Your task to perform on an android device: Open maps Image 0: 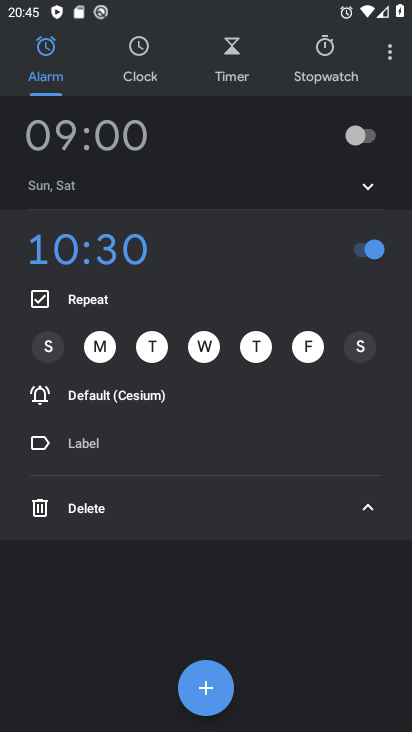
Step 0: press home button
Your task to perform on an android device: Open maps Image 1: 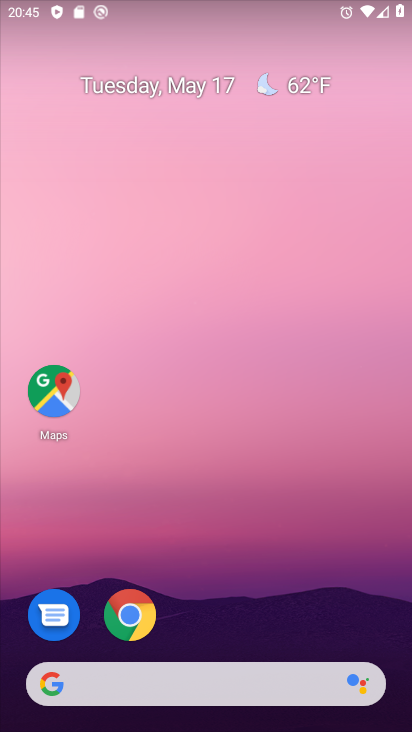
Step 1: click (59, 390)
Your task to perform on an android device: Open maps Image 2: 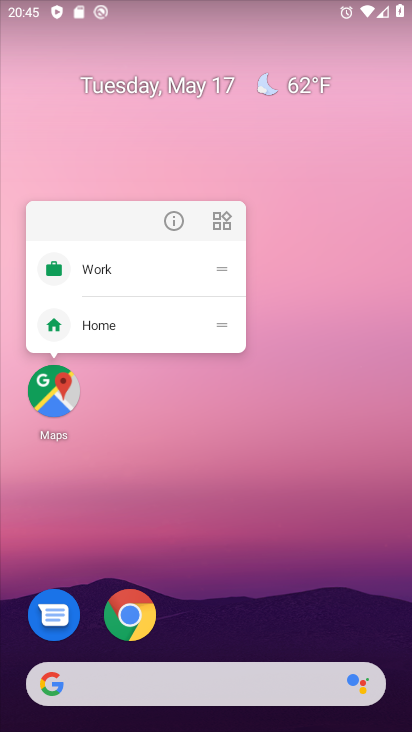
Step 2: click (54, 403)
Your task to perform on an android device: Open maps Image 3: 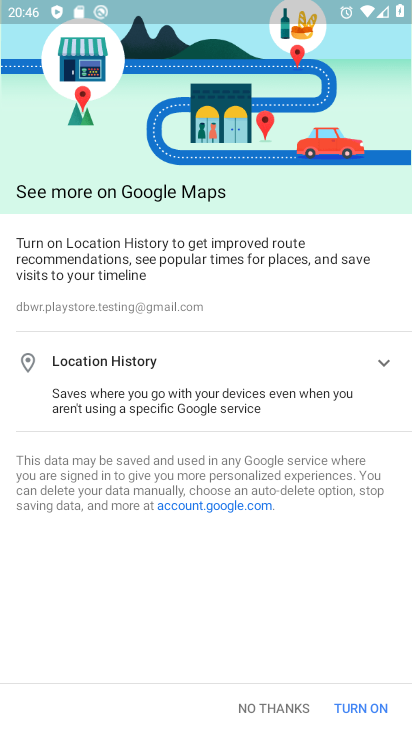
Step 3: click (275, 716)
Your task to perform on an android device: Open maps Image 4: 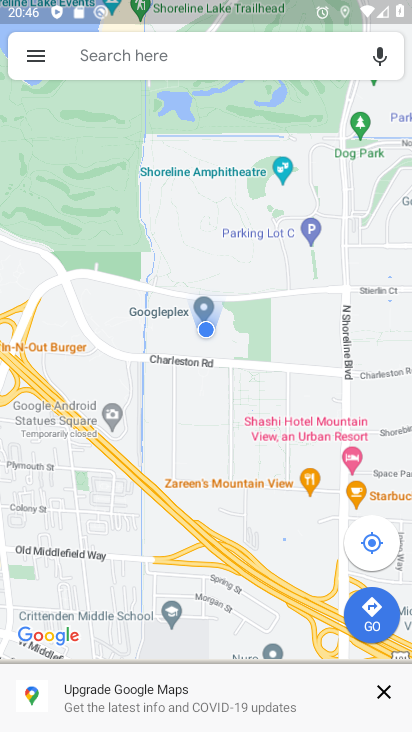
Step 4: task complete